Your task to perform on an android device: Open the web browser Image 0: 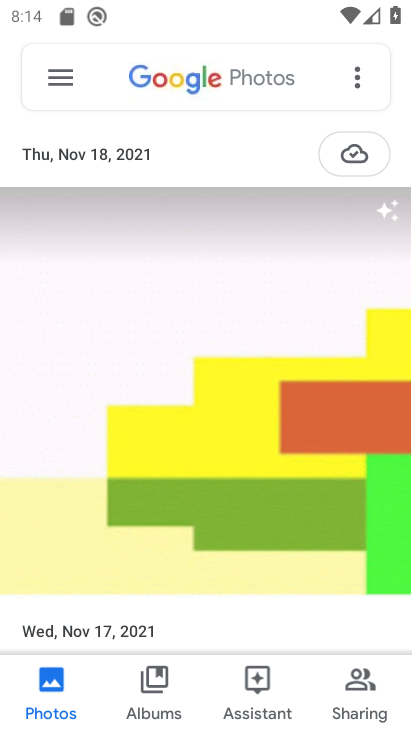
Step 0: press home button
Your task to perform on an android device: Open the web browser Image 1: 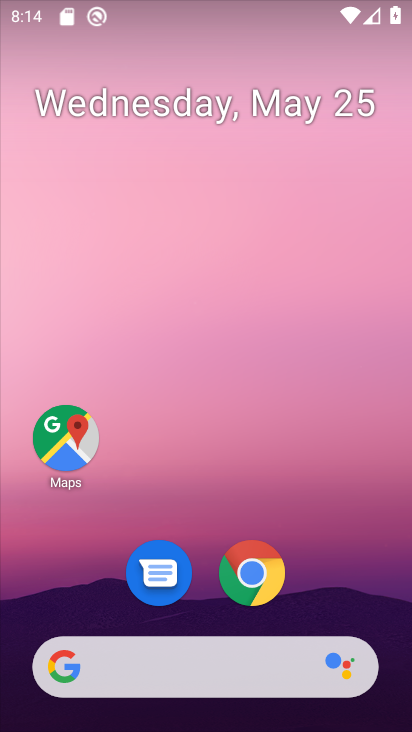
Step 1: click (258, 565)
Your task to perform on an android device: Open the web browser Image 2: 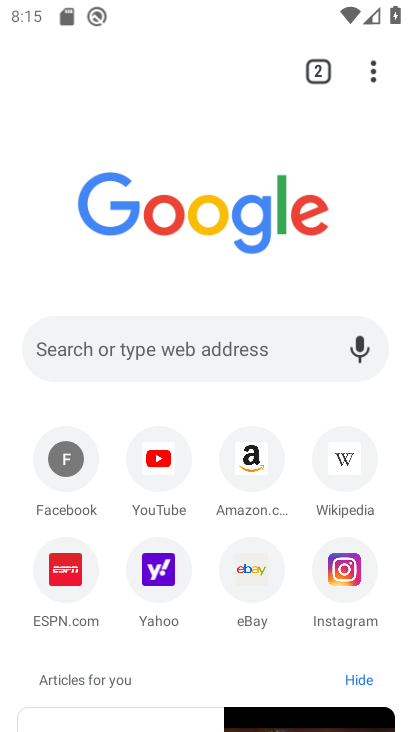
Step 2: task complete